Your task to perform on an android device: Go to eBay Image 0: 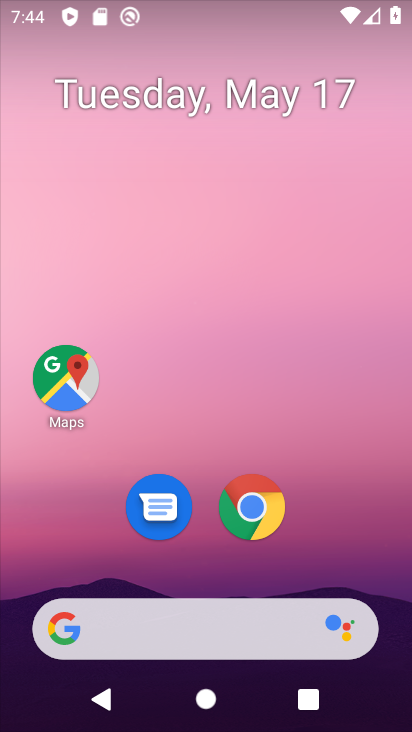
Step 0: drag from (298, 692) to (195, 145)
Your task to perform on an android device: Go to eBay Image 1: 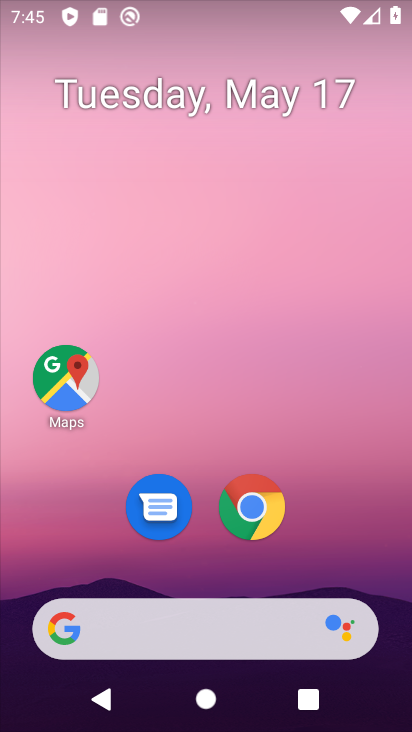
Step 1: drag from (279, 681) to (190, 162)
Your task to perform on an android device: Go to eBay Image 2: 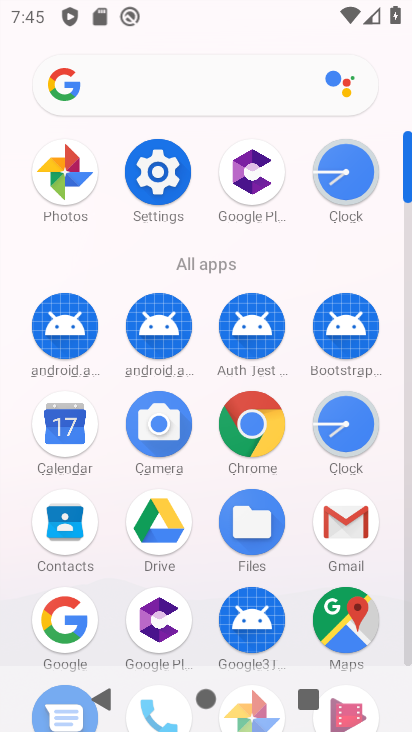
Step 2: click (240, 419)
Your task to perform on an android device: Go to eBay Image 3: 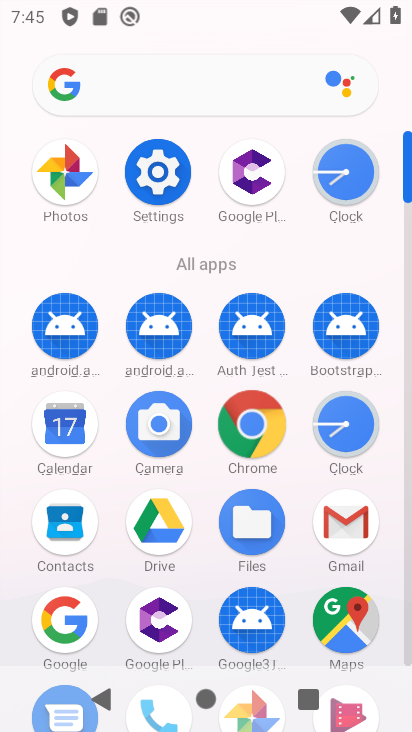
Step 3: click (247, 413)
Your task to perform on an android device: Go to eBay Image 4: 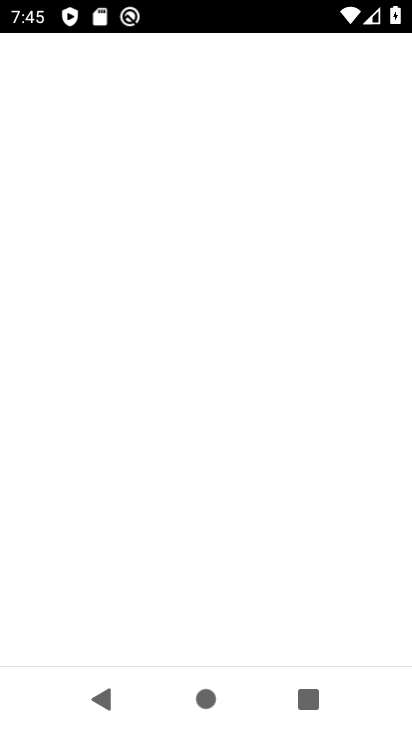
Step 4: click (239, 411)
Your task to perform on an android device: Go to eBay Image 5: 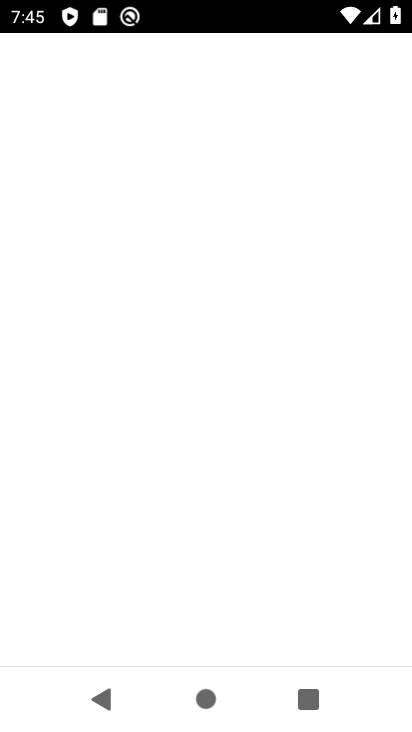
Step 5: click (239, 411)
Your task to perform on an android device: Go to eBay Image 6: 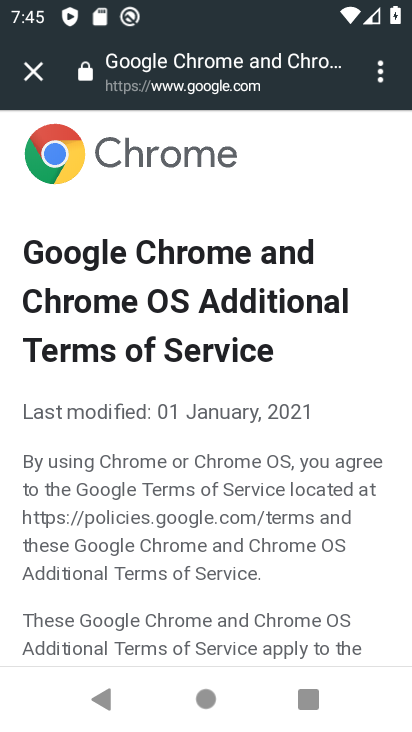
Step 6: click (33, 69)
Your task to perform on an android device: Go to eBay Image 7: 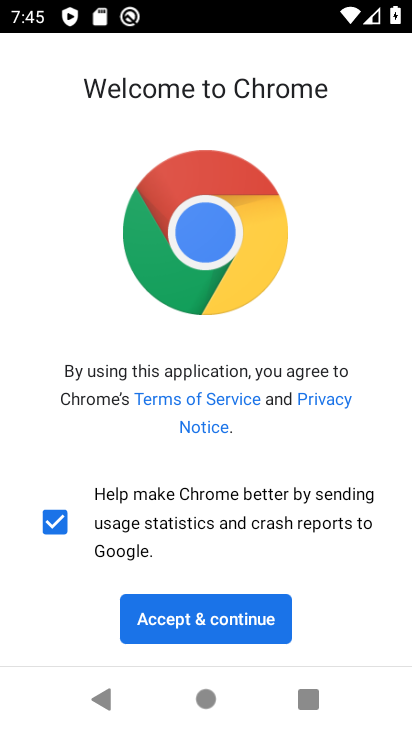
Step 7: click (191, 628)
Your task to perform on an android device: Go to eBay Image 8: 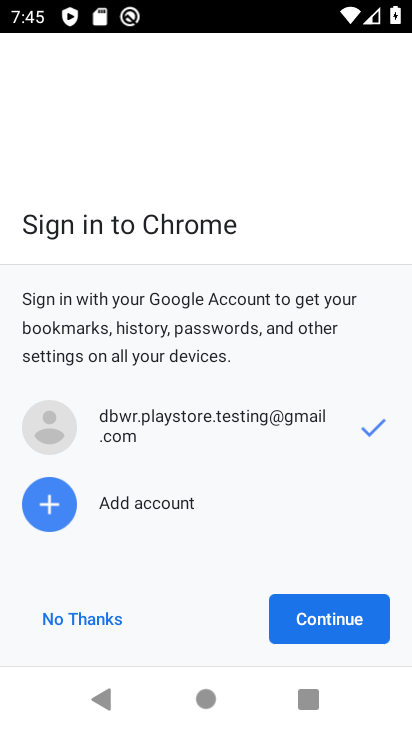
Step 8: click (197, 625)
Your task to perform on an android device: Go to eBay Image 9: 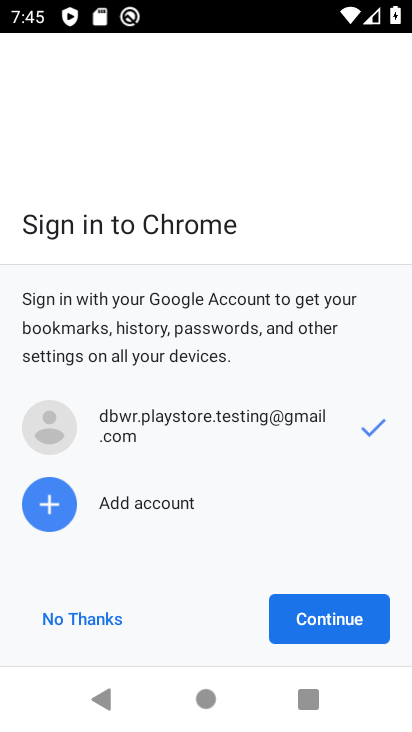
Step 9: click (197, 625)
Your task to perform on an android device: Go to eBay Image 10: 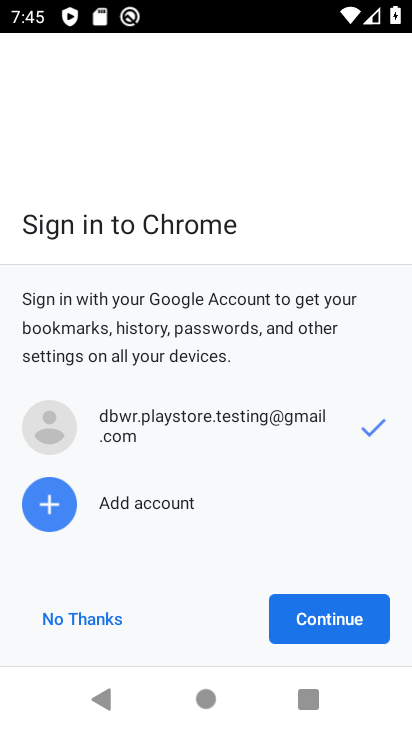
Step 10: click (312, 607)
Your task to perform on an android device: Go to eBay Image 11: 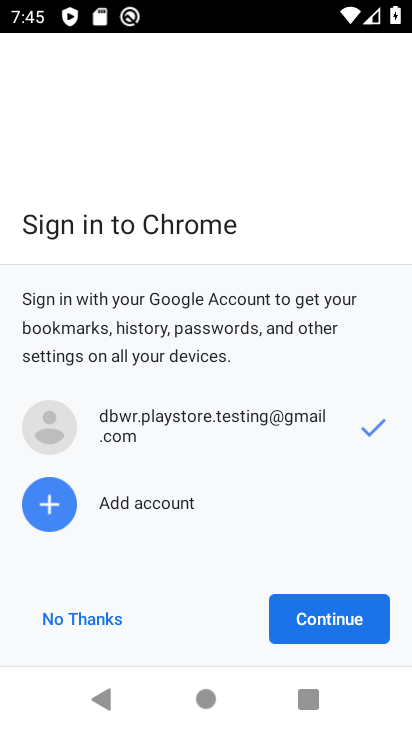
Step 11: click (320, 604)
Your task to perform on an android device: Go to eBay Image 12: 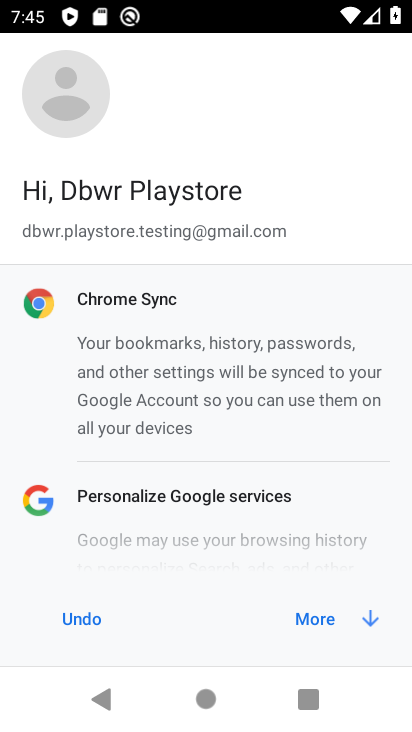
Step 12: click (332, 619)
Your task to perform on an android device: Go to eBay Image 13: 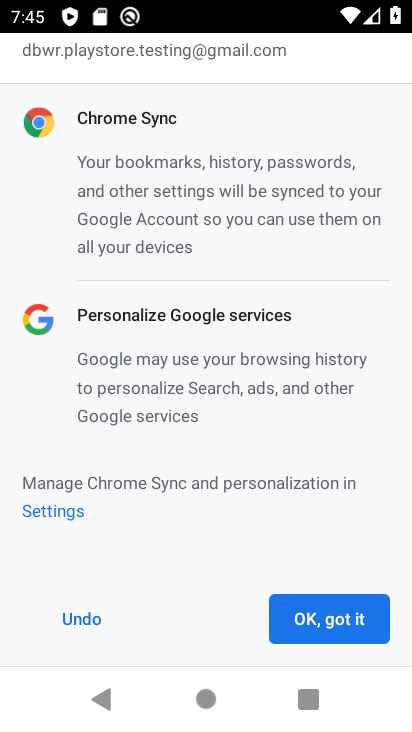
Step 13: click (351, 608)
Your task to perform on an android device: Go to eBay Image 14: 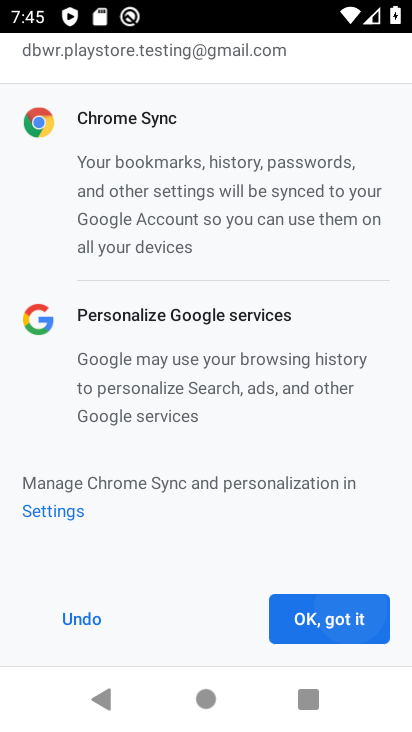
Step 14: click (362, 626)
Your task to perform on an android device: Go to eBay Image 15: 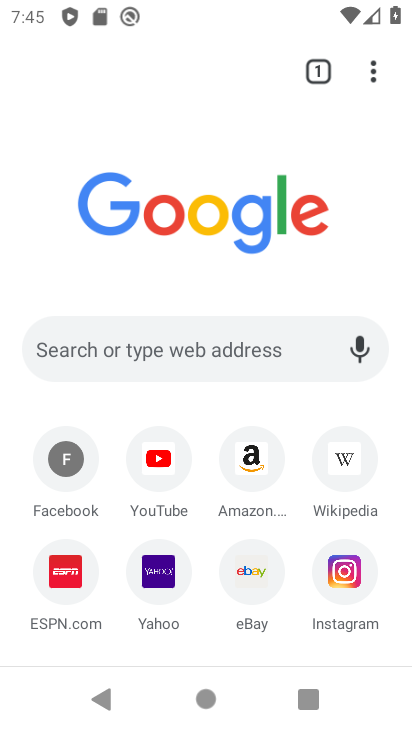
Step 15: click (254, 588)
Your task to perform on an android device: Go to eBay Image 16: 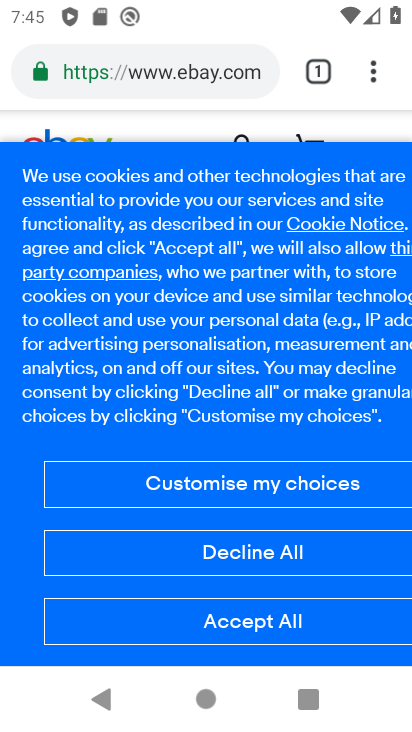
Step 16: task complete